Your task to perform on an android device: Open Youtube and go to the subscriptions tab Image 0: 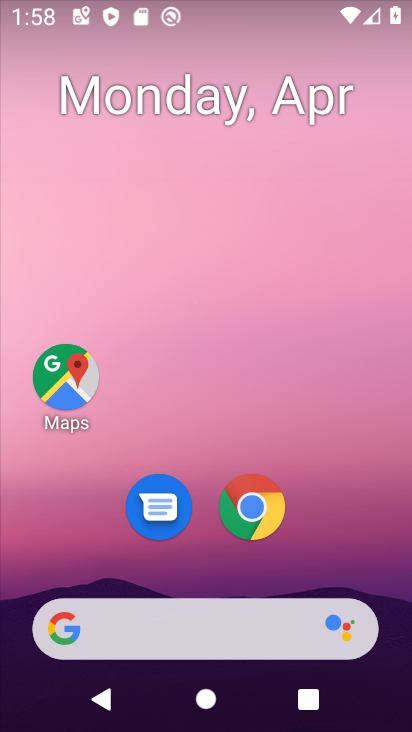
Step 0: drag from (386, 627) to (332, 201)
Your task to perform on an android device: Open Youtube and go to the subscriptions tab Image 1: 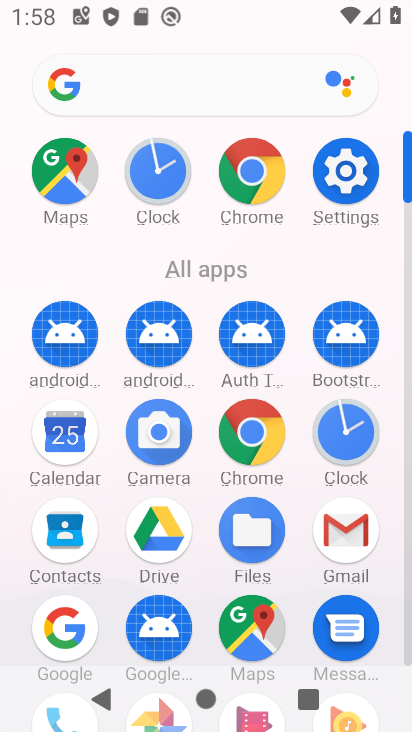
Step 1: click (408, 641)
Your task to perform on an android device: Open Youtube and go to the subscriptions tab Image 2: 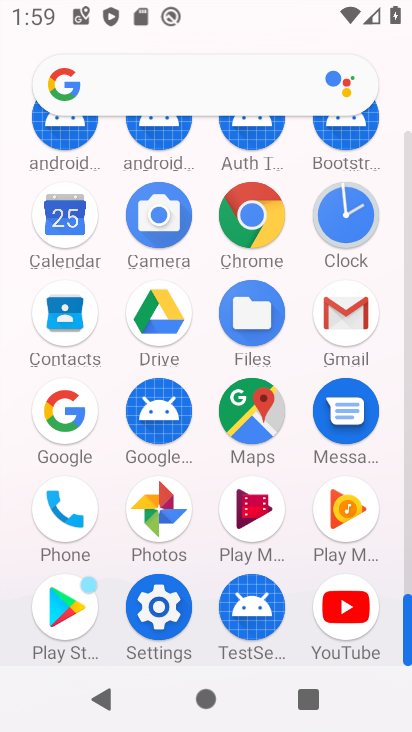
Step 2: click (343, 608)
Your task to perform on an android device: Open Youtube and go to the subscriptions tab Image 3: 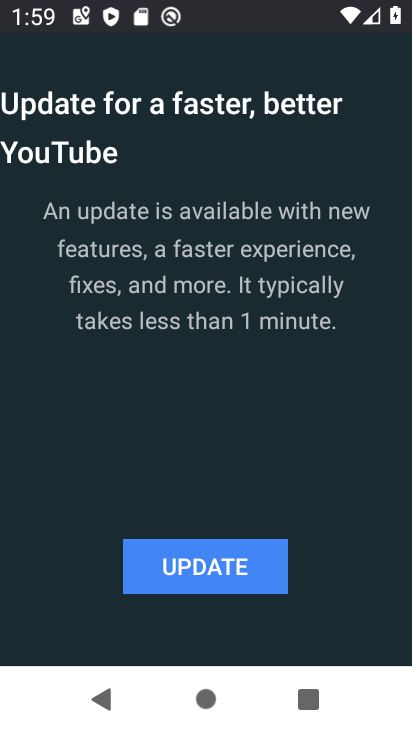
Step 3: click (199, 569)
Your task to perform on an android device: Open Youtube and go to the subscriptions tab Image 4: 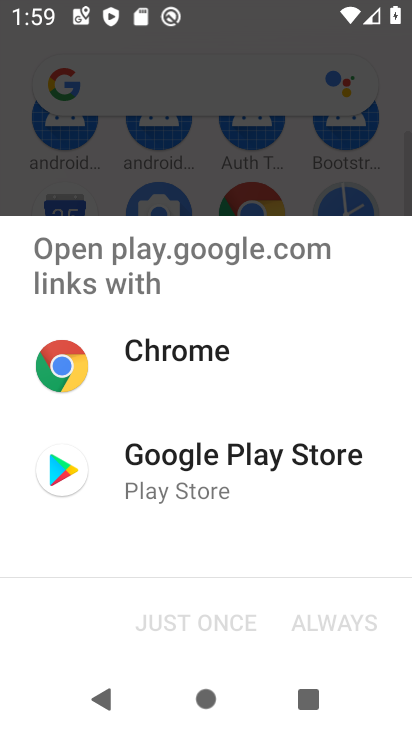
Step 4: click (160, 473)
Your task to perform on an android device: Open Youtube and go to the subscriptions tab Image 5: 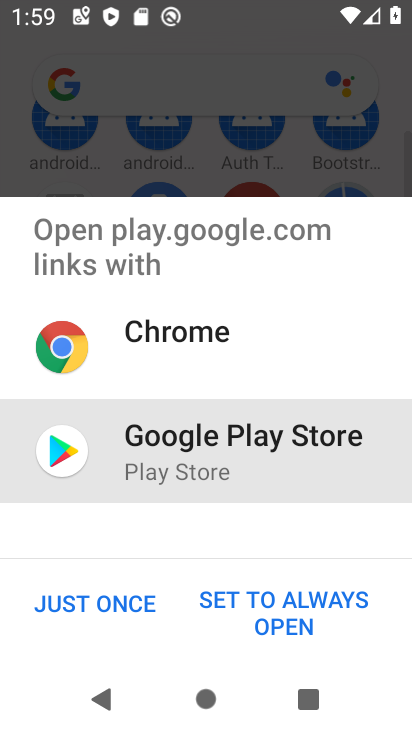
Step 5: click (81, 613)
Your task to perform on an android device: Open Youtube and go to the subscriptions tab Image 6: 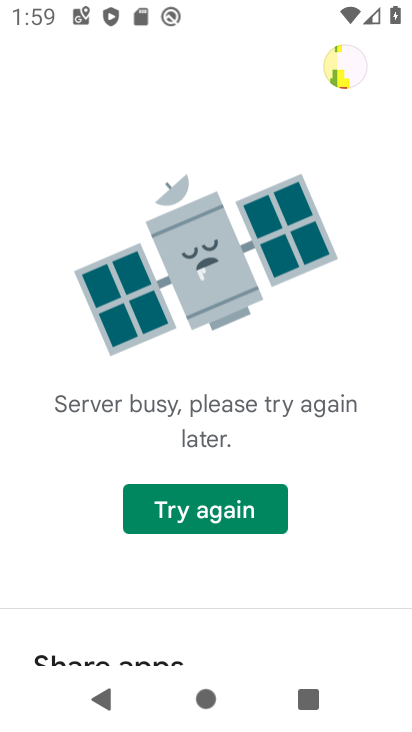
Step 6: press home button
Your task to perform on an android device: Open Youtube and go to the subscriptions tab Image 7: 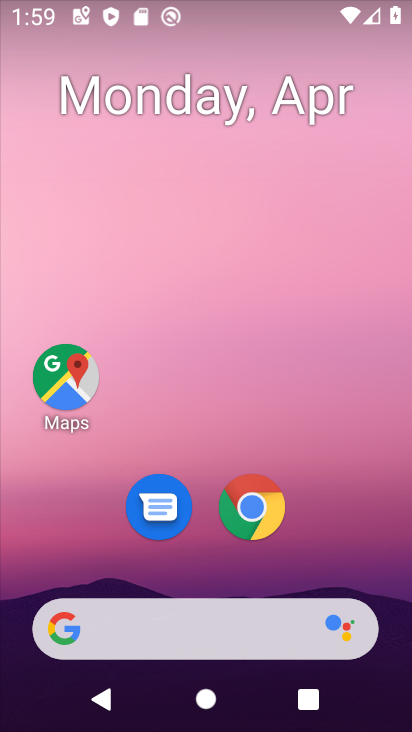
Step 7: drag from (399, 626) to (334, 117)
Your task to perform on an android device: Open Youtube and go to the subscriptions tab Image 8: 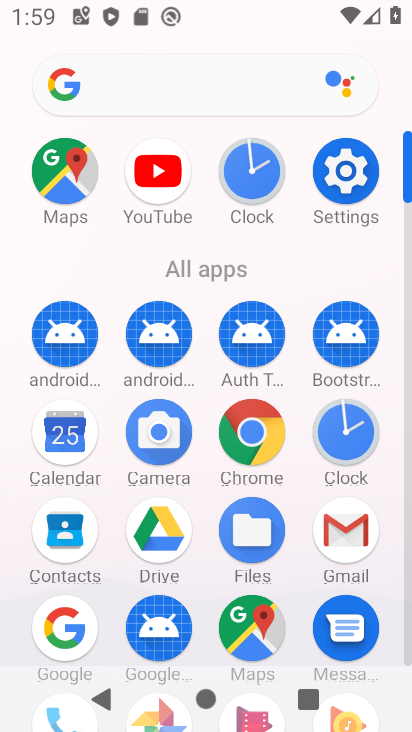
Step 8: click (407, 650)
Your task to perform on an android device: Open Youtube and go to the subscriptions tab Image 9: 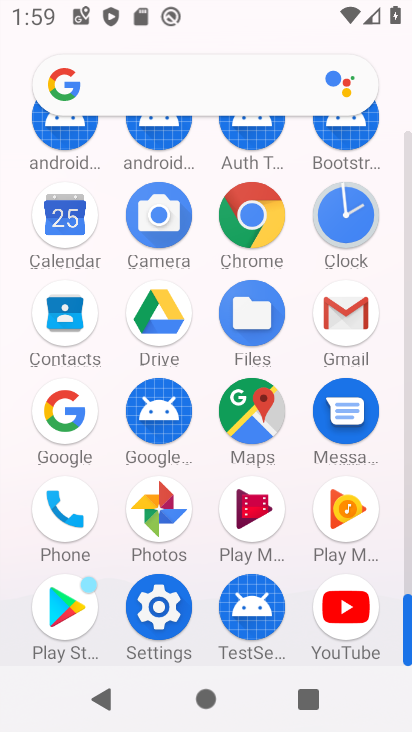
Step 9: click (342, 602)
Your task to perform on an android device: Open Youtube and go to the subscriptions tab Image 10: 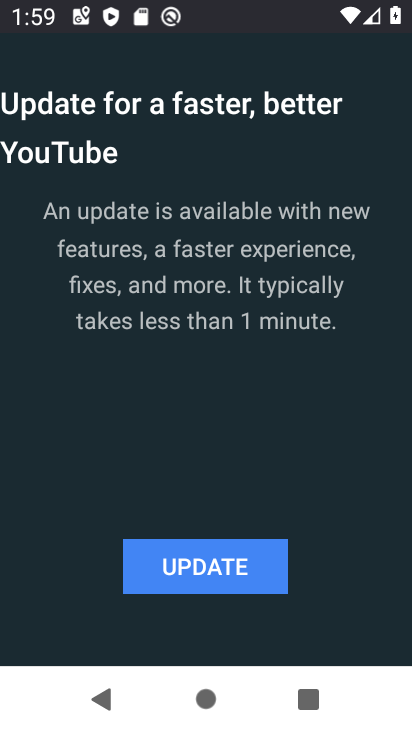
Step 10: click (191, 557)
Your task to perform on an android device: Open Youtube and go to the subscriptions tab Image 11: 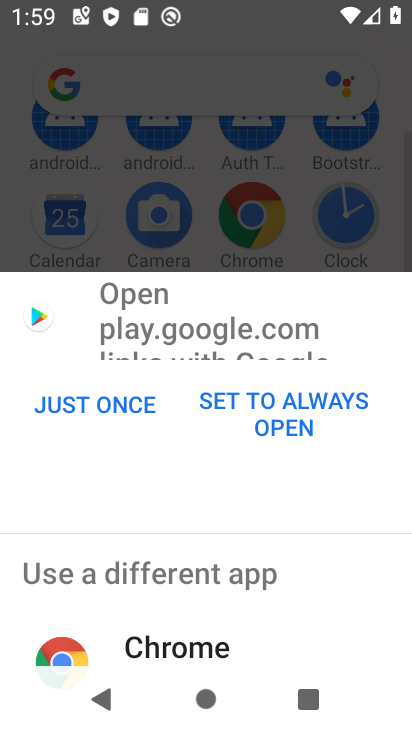
Step 11: click (89, 409)
Your task to perform on an android device: Open Youtube and go to the subscriptions tab Image 12: 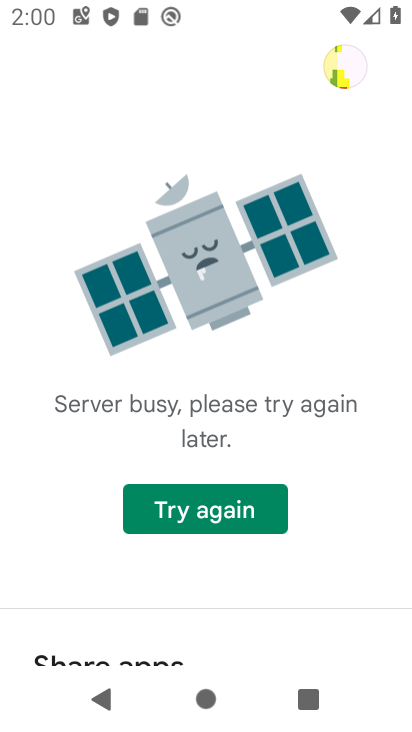
Step 12: task complete